Your task to perform on an android device: Open my contact list Image 0: 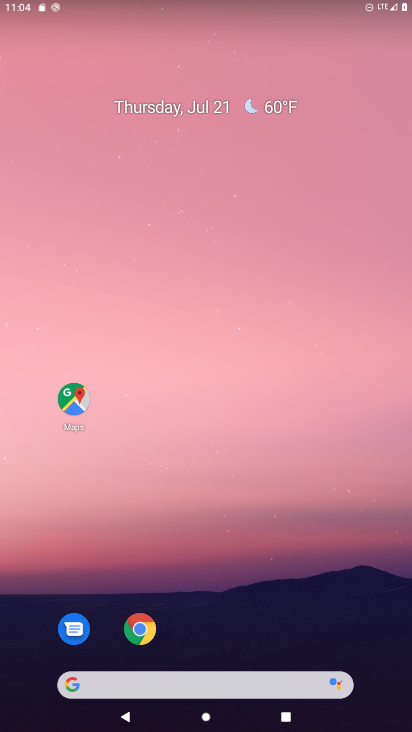
Step 0: press home button
Your task to perform on an android device: Open my contact list Image 1: 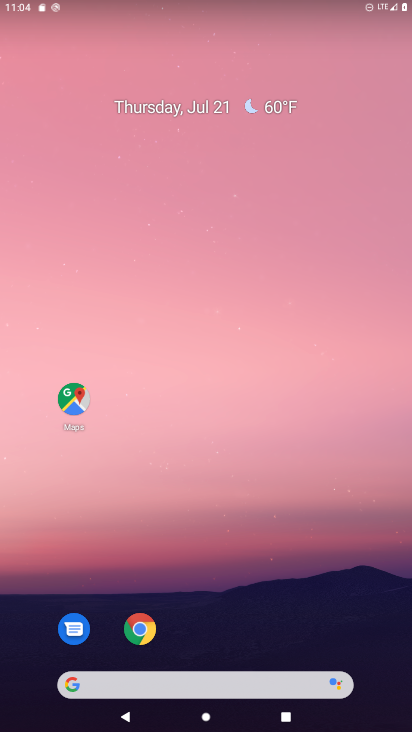
Step 1: drag from (305, 601) to (242, 106)
Your task to perform on an android device: Open my contact list Image 2: 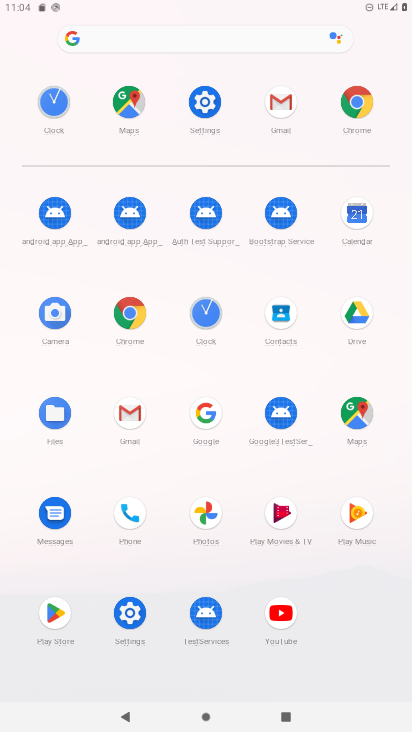
Step 2: click (285, 320)
Your task to perform on an android device: Open my contact list Image 3: 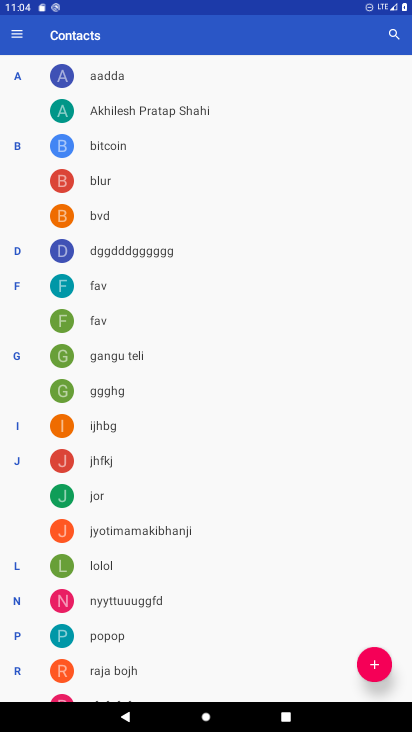
Step 3: task complete